Your task to perform on an android device: turn off data saver in the chrome app Image 0: 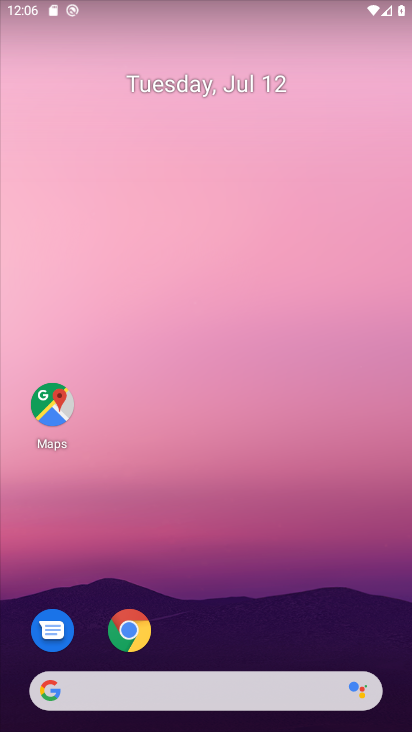
Step 0: click (132, 634)
Your task to perform on an android device: turn off data saver in the chrome app Image 1: 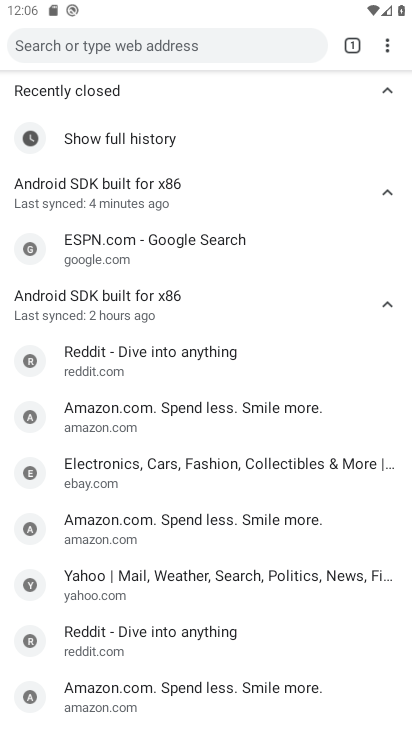
Step 1: click (383, 44)
Your task to perform on an android device: turn off data saver in the chrome app Image 2: 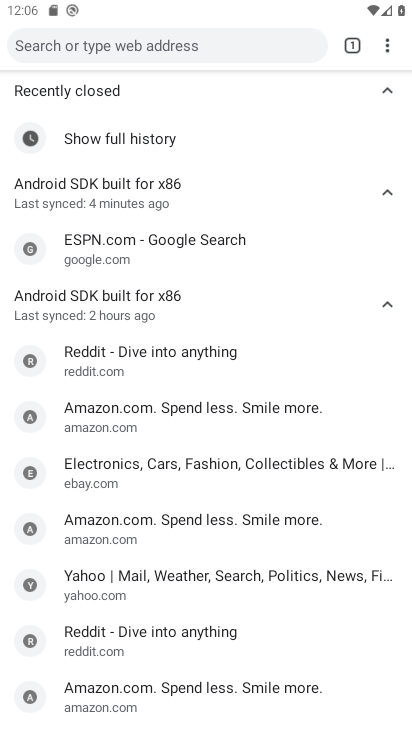
Step 2: click (386, 48)
Your task to perform on an android device: turn off data saver in the chrome app Image 3: 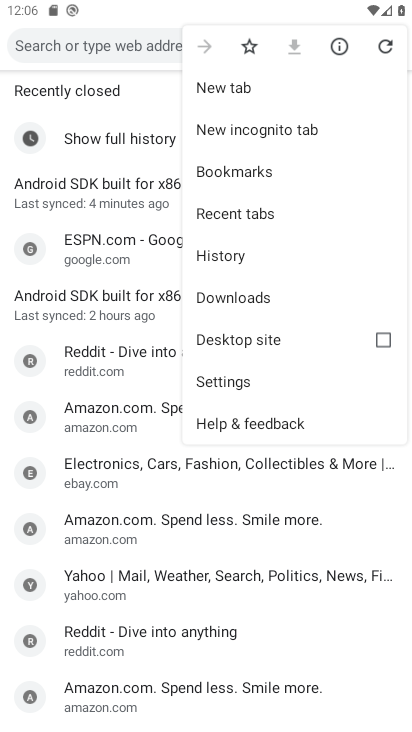
Step 3: click (210, 377)
Your task to perform on an android device: turn off data saver in the chrome app Image 4: 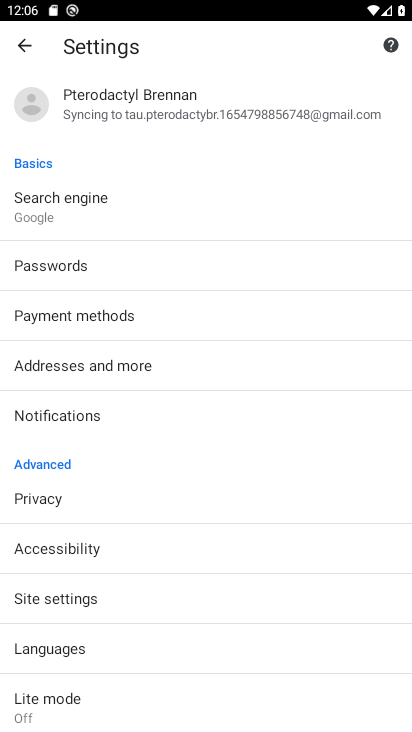
Step 4: drag from (96, 653) to (106, 472)
Your task to perform on an android device: turn off data saver in the chrome app Image 5: 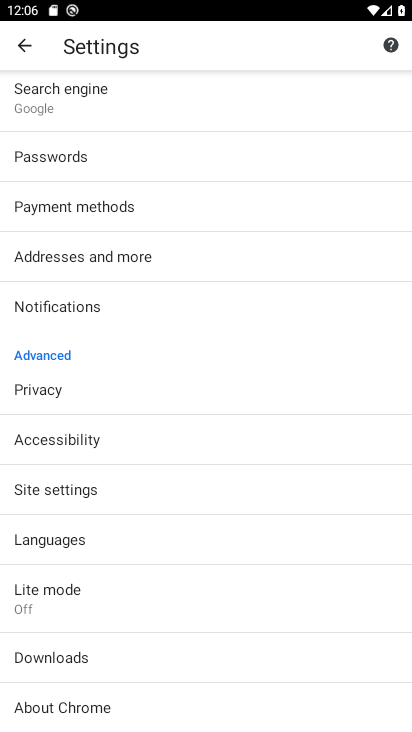
Step 5: click (95, 606)
Your task to perform on an android device: turn off data saver in the chrome app Image 6: 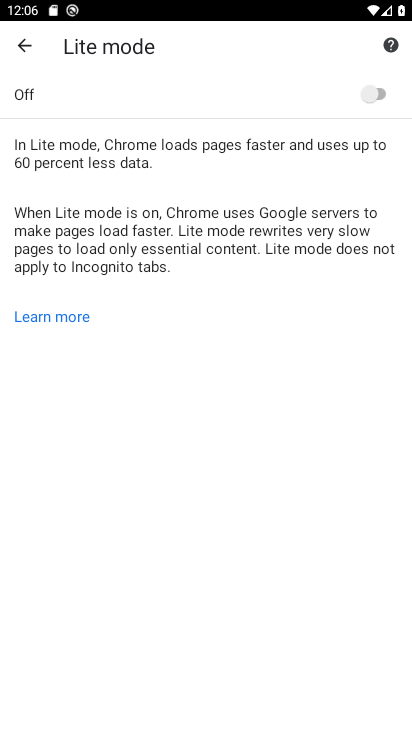
Step 6: task complete